Your task to perform on an android device: Search for seafood restaurants on Google Maps Image 0: 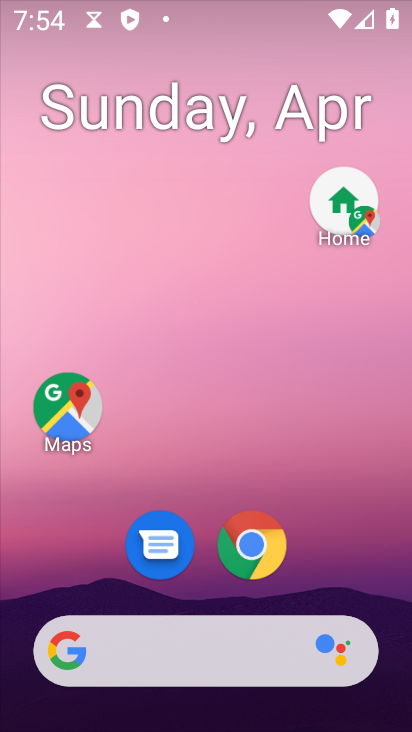
Step 0: drag from (337, 538) to (258, 79)
Your task to perform on an android device: Search for seafood restaurants on Google Maps Image 1: 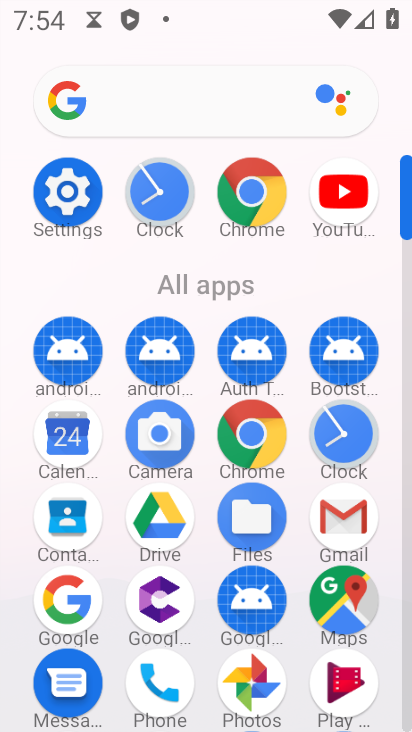
Step 1: click (343, 586)
Your task to perform on an android device: Search for seafood restaurants on Google Maps Image 2: 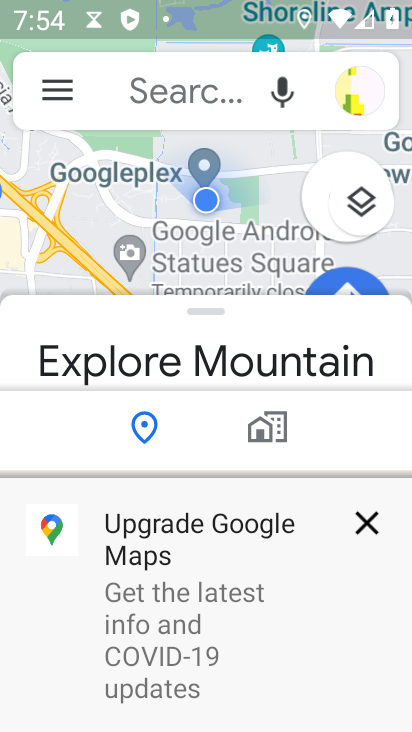
Step 2: click (366, 512)
Your task to perform on an android device: Search for seafood restaurants on Google Maps Image 3: 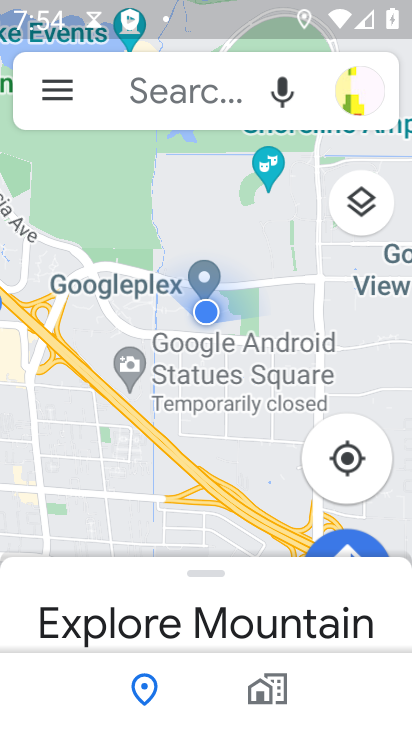
Step 3: click (190, 78)
Your task to perform on an android device: Search for seafood restaurants on Google Maps Image 4: 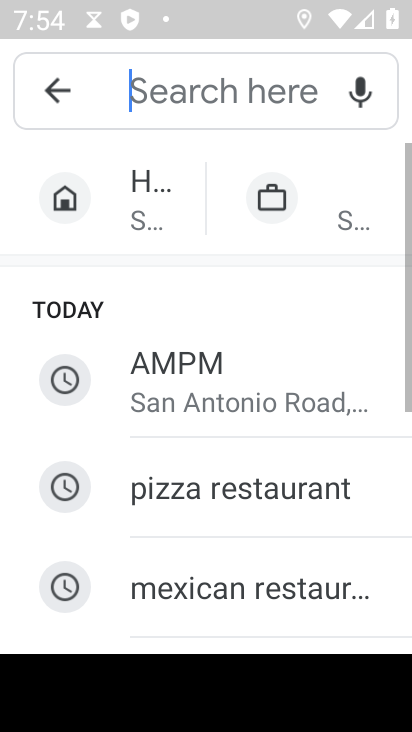
Step 4: type "seafood restaurants"
Your task to perform on an android device: Search for seafood restaurants on Google Maps Image 5: 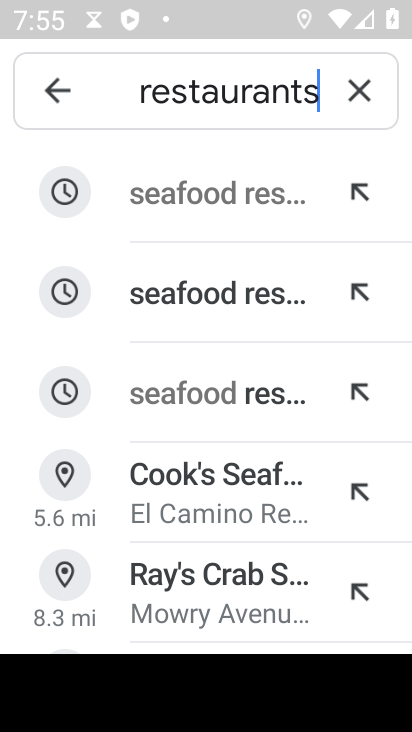
Step 5: click (168, 209)
Your task to perform on an android device: Search for seafood restaurants on Google Maps Image 6: 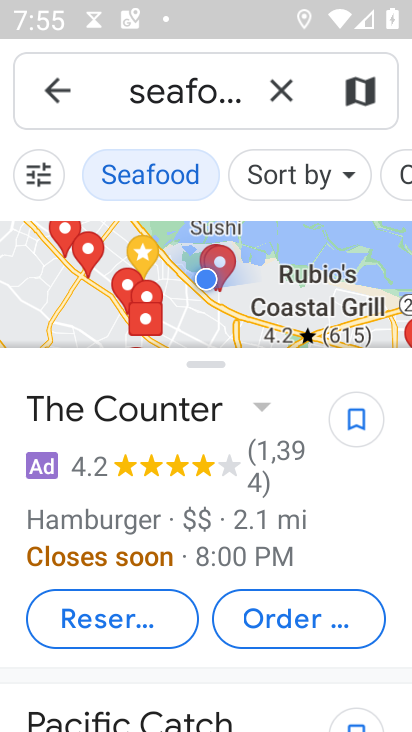
Step 6: click (173, 376)
Your task to perform on an android device: Search for seafood restaurants on Google Maps Image 7: 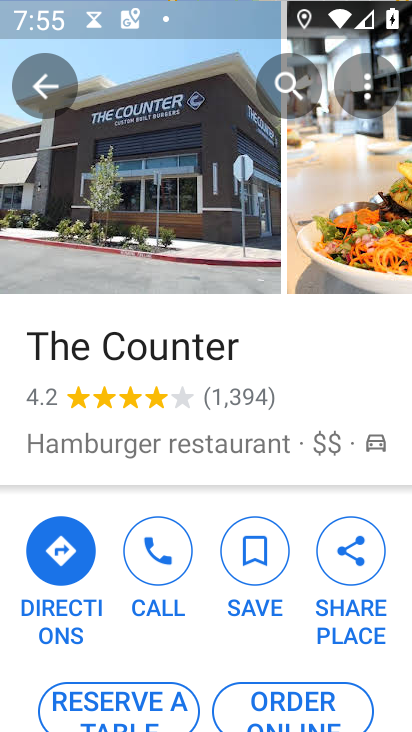
Step 7: task complete